Your task to perform on an android device: read, delete, or share a saved page in the chrome app Image 0: 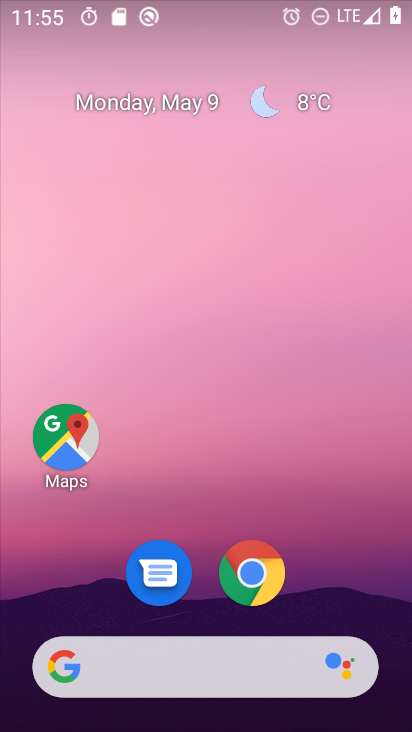
Step 0: press home button
Your task to perform on an android device: read, delete, or share a saved page in the chrome app Image 1: 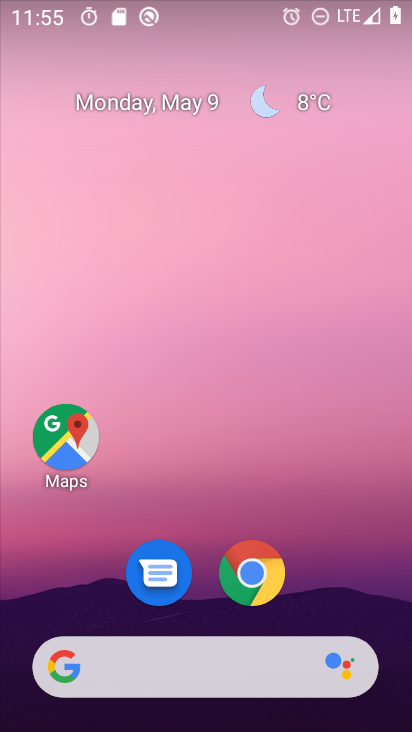
Step 1: click (255, 572)
Your task to perform on an android device: read, delete, or share a saved page in the chrome app Image 2: 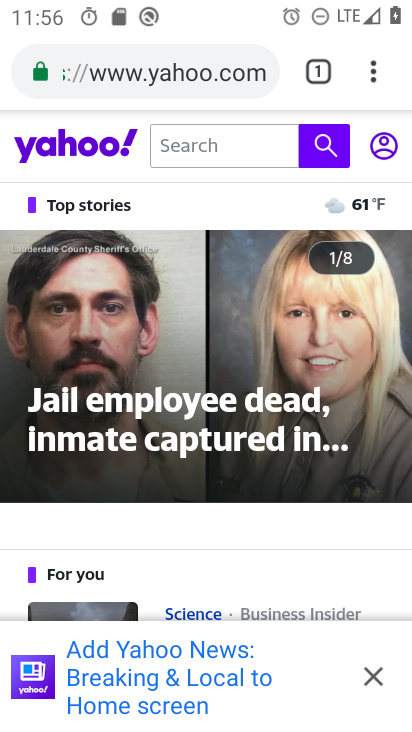
Step 2: task complete